Your task to perform on an android device: open sync settings in chrome Image 0: 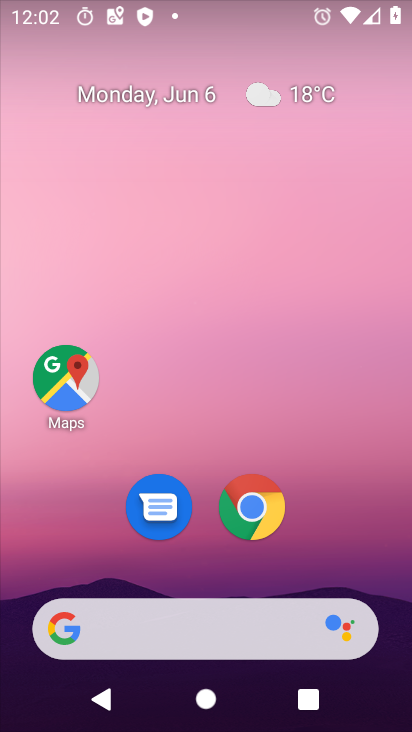
Step 0: click (250, 515)
Your task to perform on an android device: open sync settings in chrome Image 1: 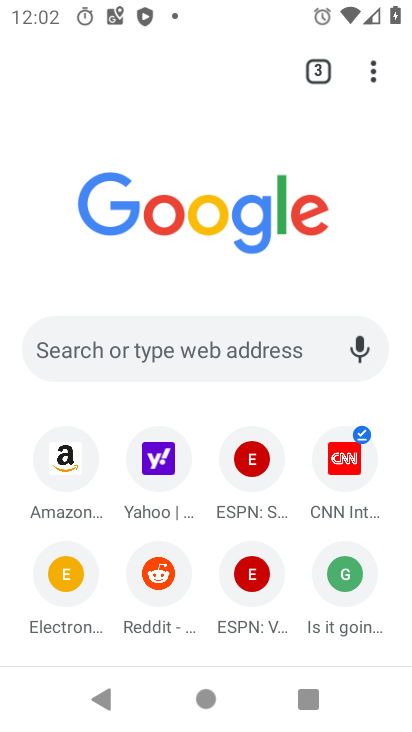
Step 1: click (374, 80)
Your task to perform on an android device: open sync settings in chrome Image 2: 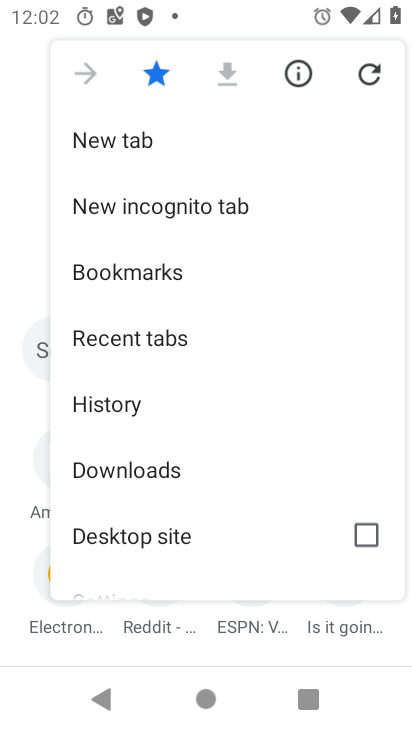
Step 2: drag from (144, 569) to (141, 99)
Your task to perform on an android device: open sync settings in chrome Image 3: 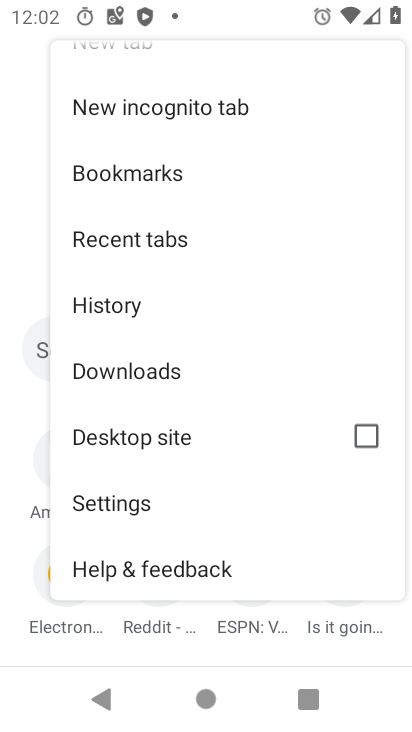
Step 3: click (121, 498)
Your task to perform on an android device: open sync settings in chrome Image 4: 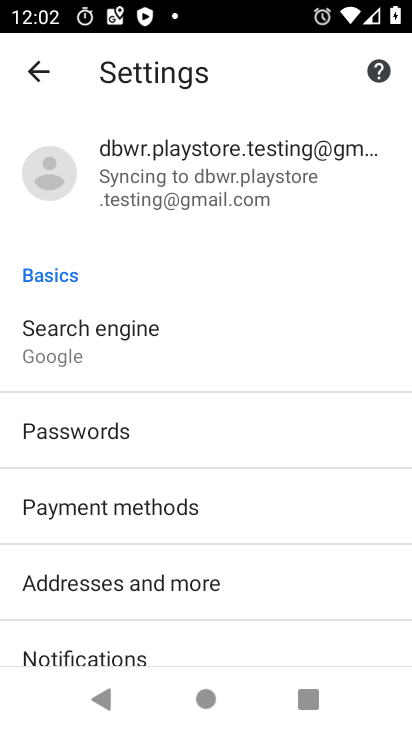
Step 4: drag from (139, 645) to (142, 234)
Your task to perform on an android device: open sync settings in chrome Image 5: 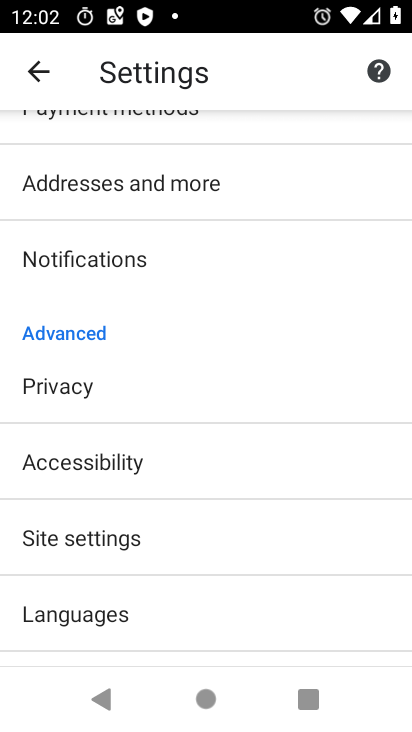
Step 5: drag from (147, 628) to (150, 365)
Your task to perform on an android device: open sync settings in chrome Image 6: 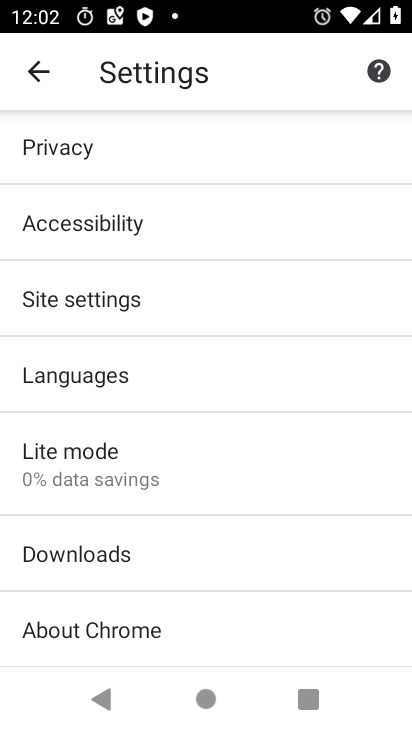
Step 6: click (78, 297)
Your task to perform on an android device: open sync settings in chrome Image 7: 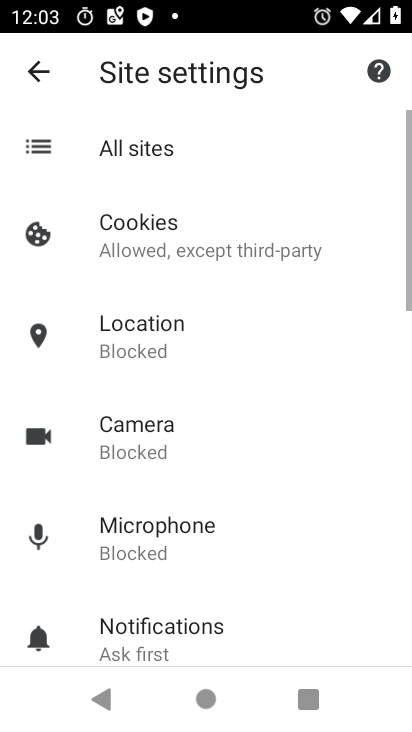
Step 7: drag from (176, 639) to (165, 187)
Your task to perform on an android device: open sync settings in chrome Image 8: 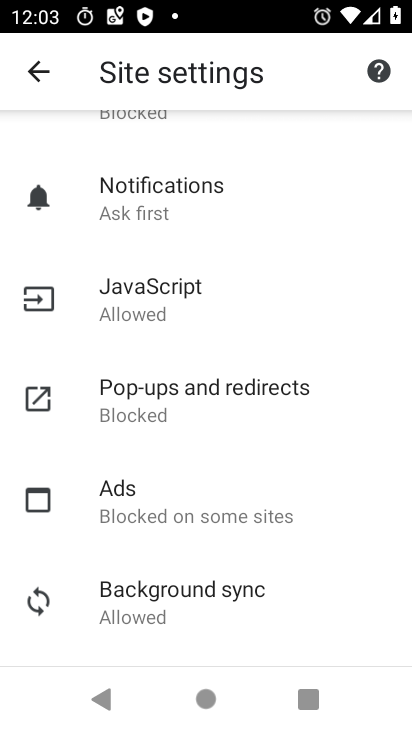
Step 8: click (193, 585)
Your task to perform on an android device: open sync settings in chrome Image 9: 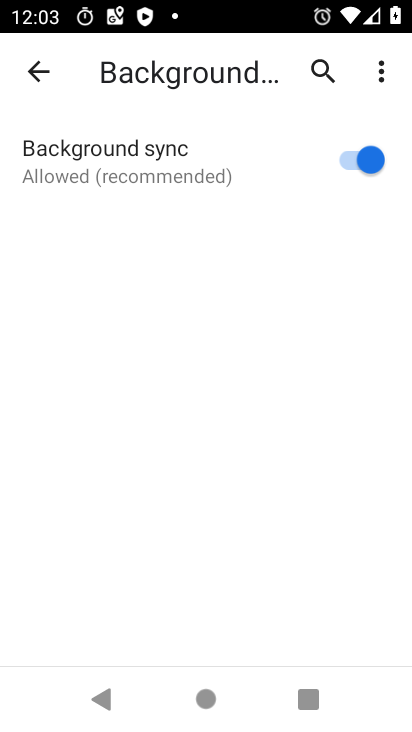
Step 9: task complete